Your task to perform on an android device: star an email in the gmail app Image 0: 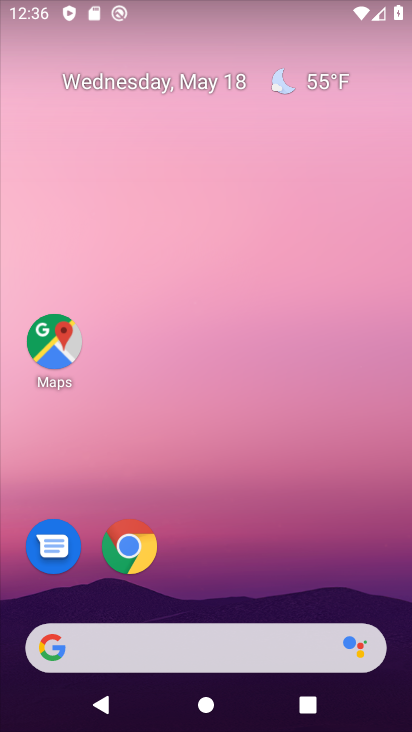
Step 0: drag from (306, 561) to (306, 144)
Your task to perform on an android device: star an email in the gmail app Image 1: 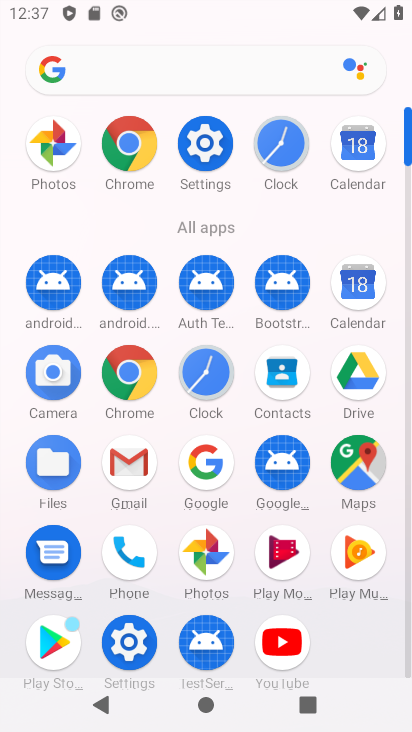
Step 1: click (119, 464)
Your task to perform on an android device: star an email in the gmail app Image 2: 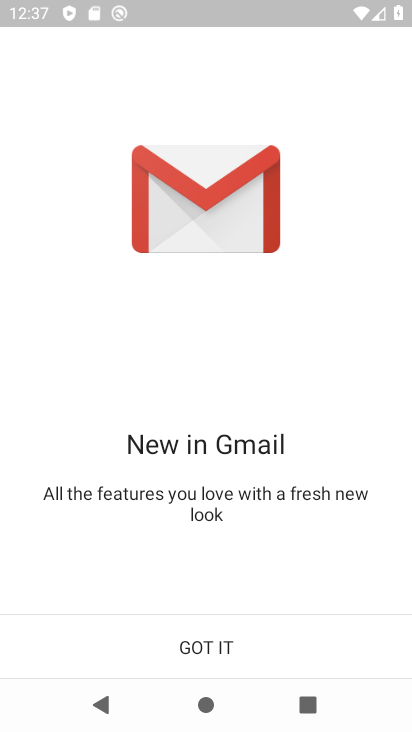
Step 2: click (186, 636)
Your task to perform on an android device: star an email in the gmail app Image 3: 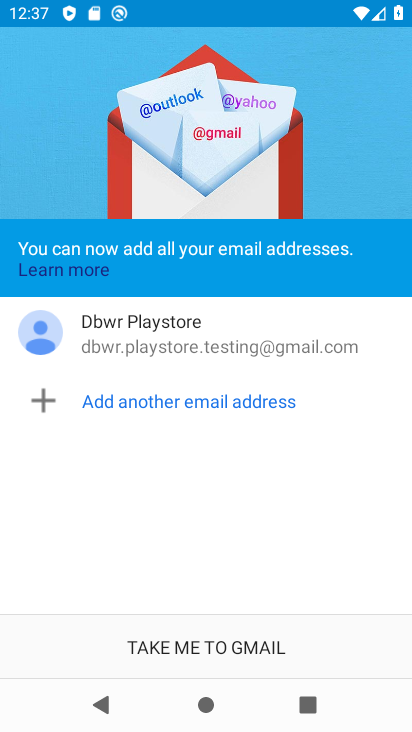
Step 3: click (187, 637)
Your task to perform on an android device: star an email in the gmail app Image 4: 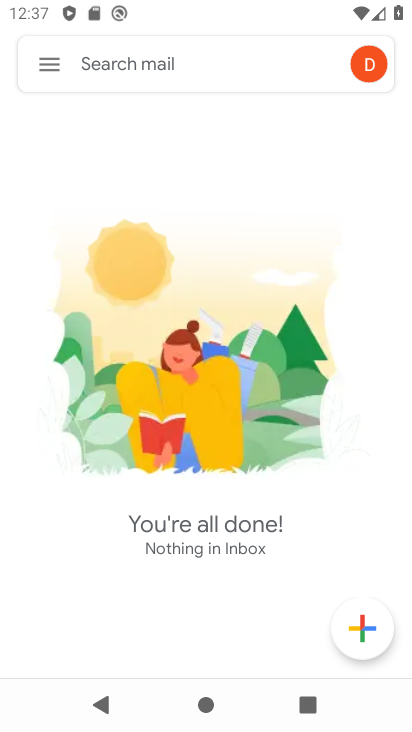
Step 4: click (38, 52)
Your task to perform on an android device: star an email in the gmail app Image 5: 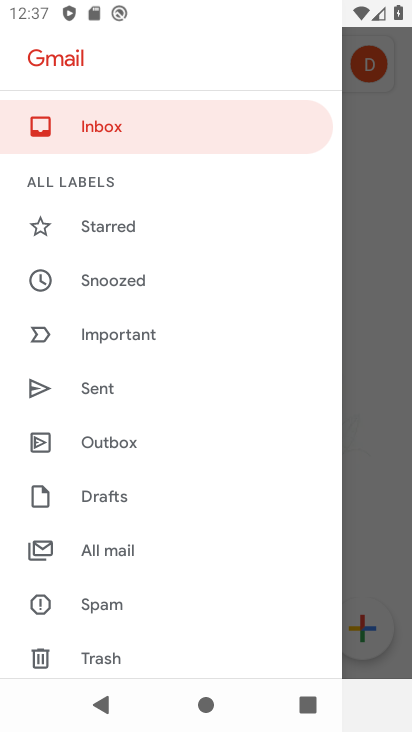
Step 5: click (150, 555)
Your task to perform on an android device: star an email in the gmail app Image 6: 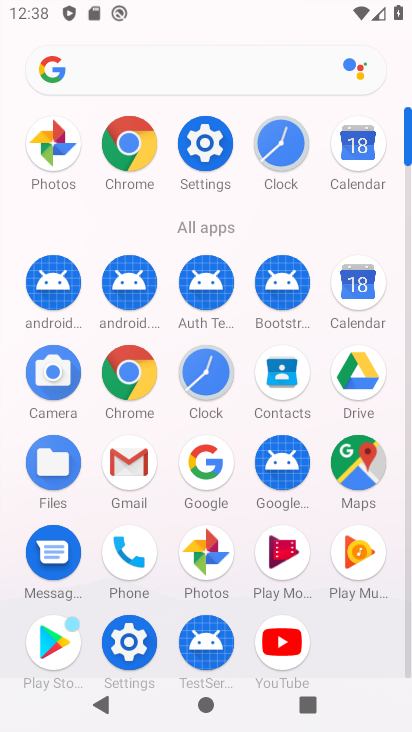
Step 6: click (143, 445)
Your task to perform on an android device: star an email in the gmail app Image 7: 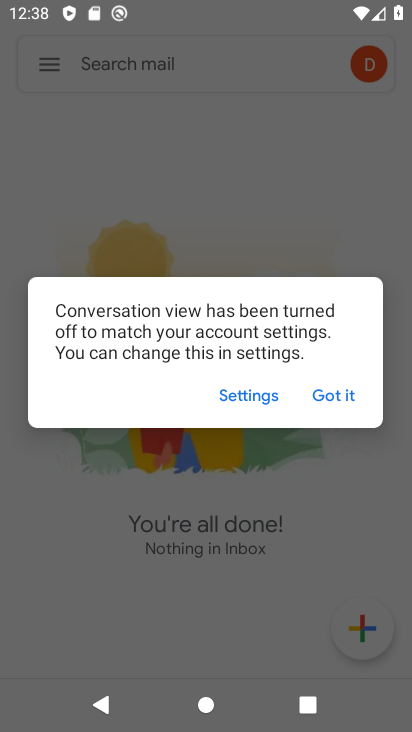
Step 7: click (323, 394)
Your task to perform on an android device: star an email in the gmail app Image 8: 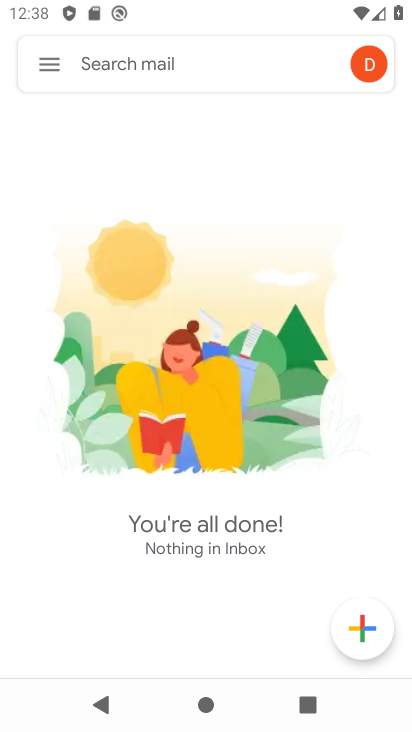
Step 8: click (39, 67)
Your task to perform on an android device: star an email in the gmail app Image 9: 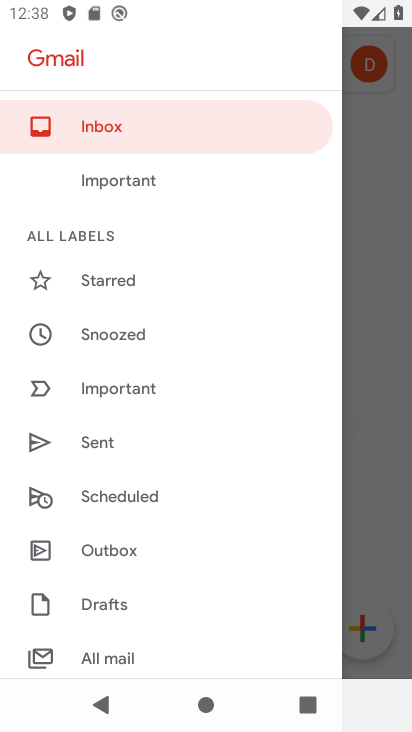
Step 9: click (143, 647)
Your task to perform on an android device: star an email in the gmail app Image 10: 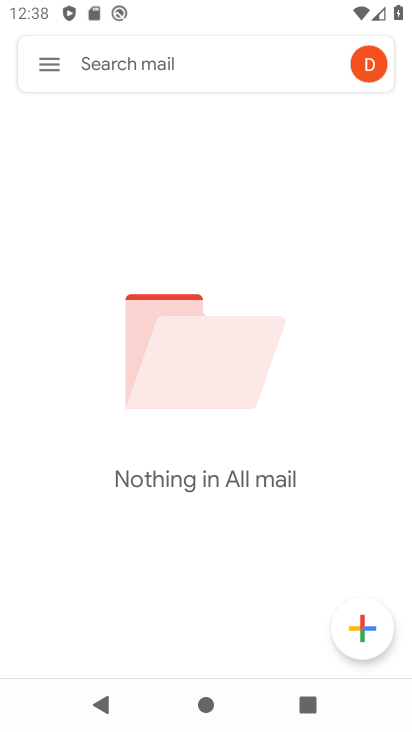
Step 10: task complete